Your task to perform on an android device: Play the last video I watched on Youtube Image 0: 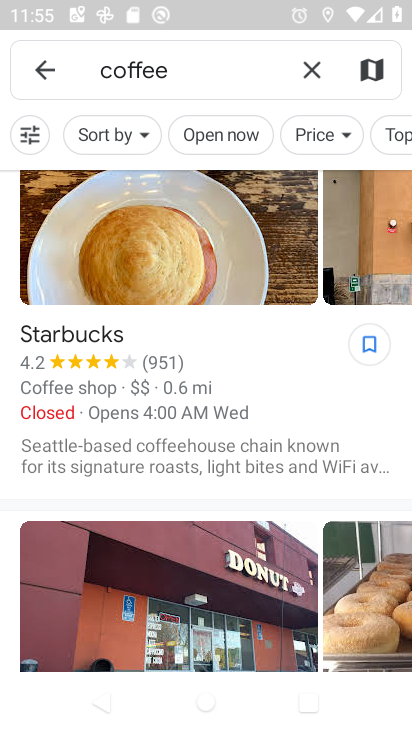
Step 0: press home button
Your task to perform on an android device: Play the last video I watched on Youtube Image 1: 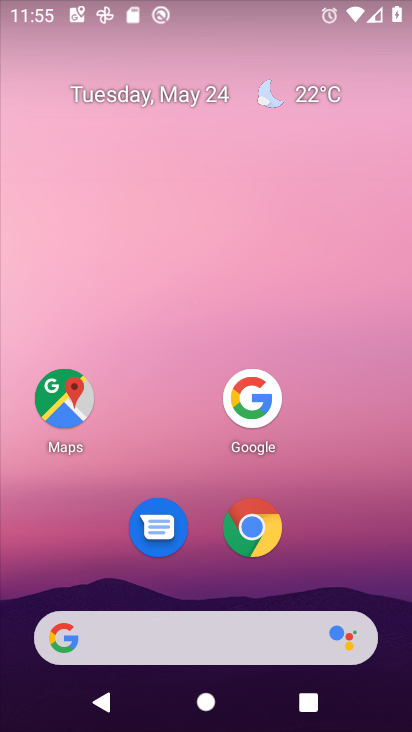
Step 1: drag from (165, 631) to (369, 113)
Your task to perform on an android device: Play the last video I watched on Youtube Image 2: 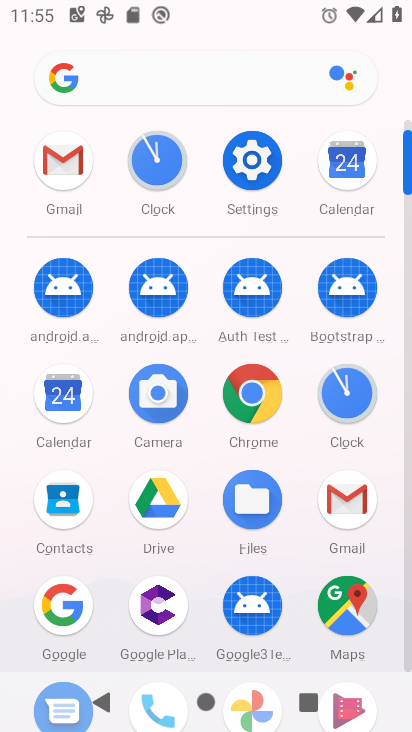
Step 2: drag from (322, 603) to (410, 605)
Your task to perform on an android device: Play the last video I watched on Youtube Image 3: 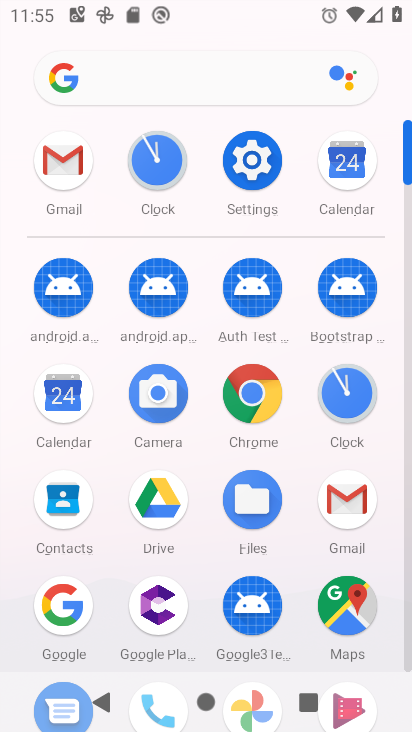
Step 3: drag from (293, 591) to (381, 242)
Your task to perform on an android device: Play the last video I watched on Youtube Image 4: 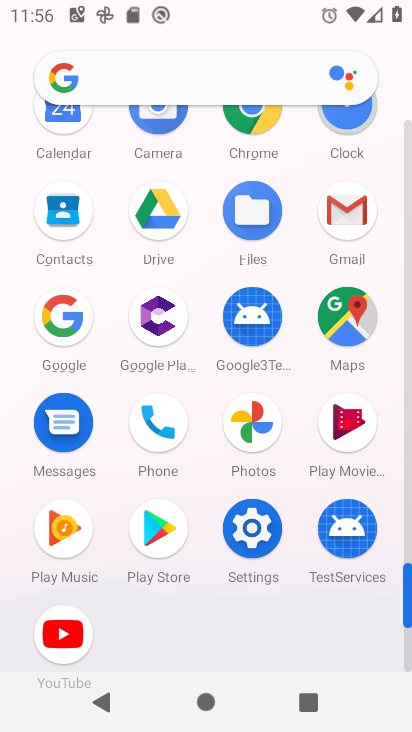
Step 4: click (60, 641)
Your task to perform on an android device: Play the last video I watched on Youtube Image 5: 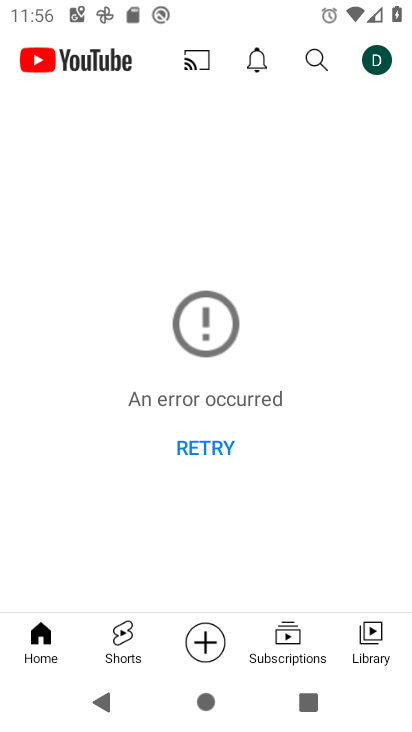
Step 5: click (215, 442)
Your task to perform on an android device: Play the last video I watched on Youtube Image 6: 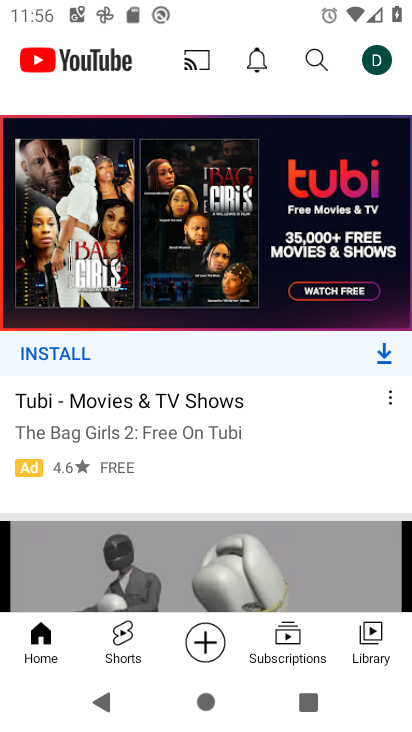
Step 6: click (375, 636)
Your task to perform on an android device: Play the last video I watched on Youtube Image 7: 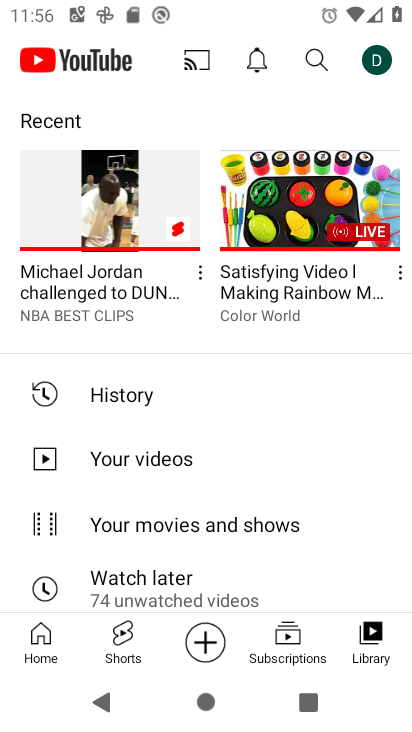
Step 7: click (105, 177)
Your task to perform on an android device: Play the last video I watched on Youtube Image 8: 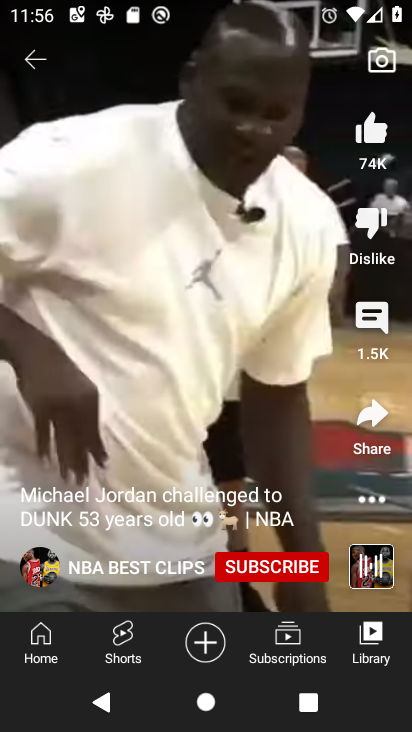
Step 8: click (239, 341)
Your task to perform on an android device: Play the last video I watched on Youtube Image 9: 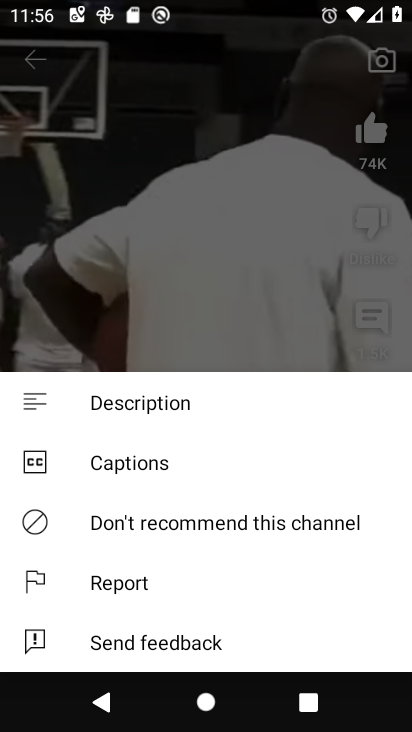
Step 9: click (213, 297)
Your task to perform on an android device: Play the last video I watched on Youtube Image 10: 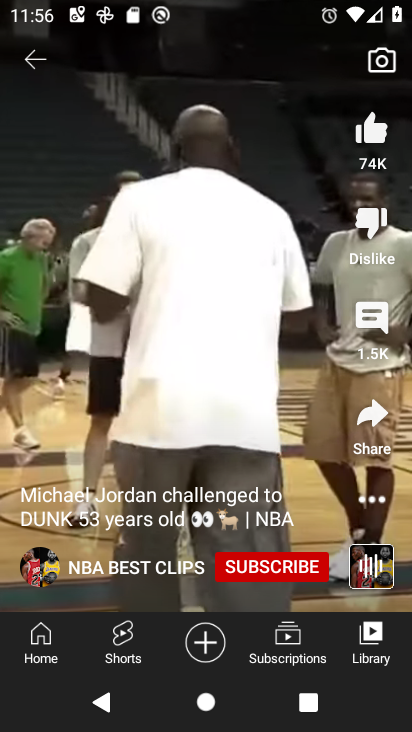
Step 10: click (213, 297)
Your task to perform on an android device: Play the last video I watched on Youtube Image 11: 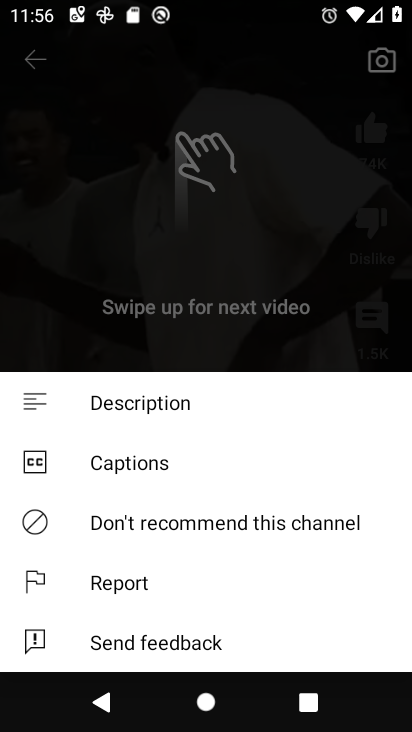
Step 11: click (35, 60)
Your task to perform on an android device: Play the last video I watched on Youtube Image 12: 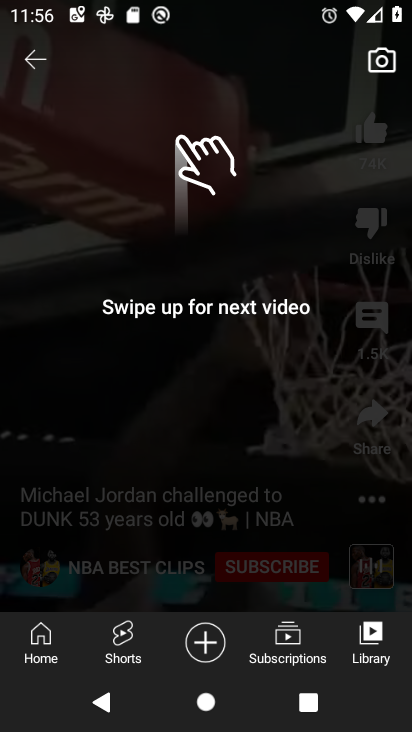
Step 12: click (31, 58)
Your task to perform on an android device: Play the last video I watched on Youtube Image 13: 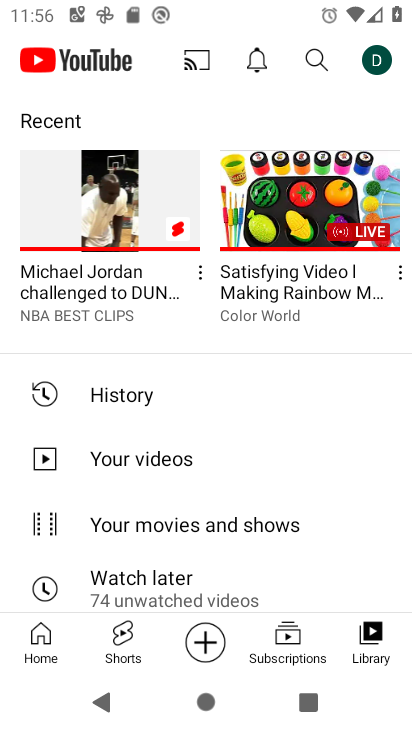
Step 13: task complete